Your task to perform on an android device: Search for sushi restaurants on Maps Image 0: 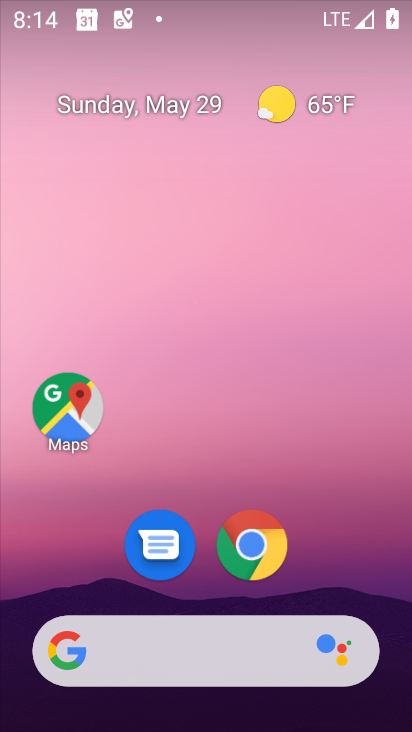
Step 0: click (63, 402)
Your task to perform on an android device: Search for sushi restaurants on Maps Image 1: 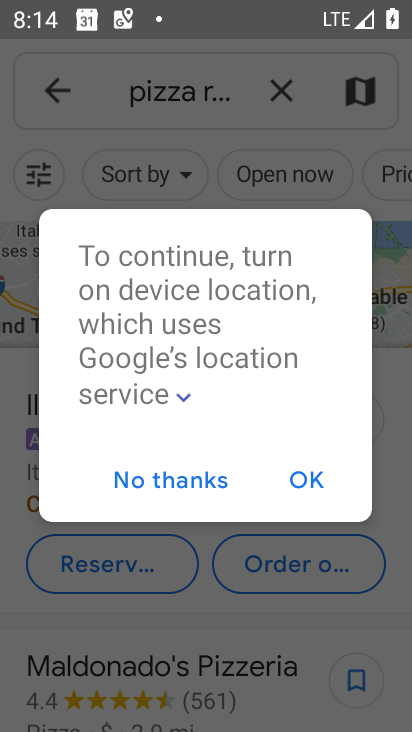
Step 1: click (323, 488)
Your task to perform on an android device: Search for sushi restaurants on Maps Image 2: 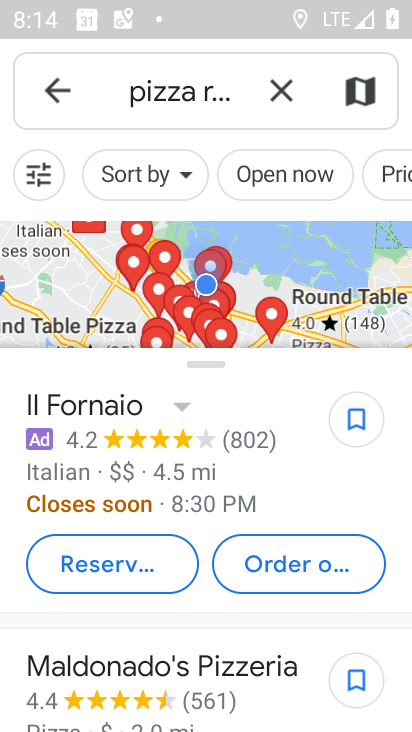
Step 2: click (278, 93)
Your task to perform on an android device: Search for sushi restaurants on Maps Image 3: 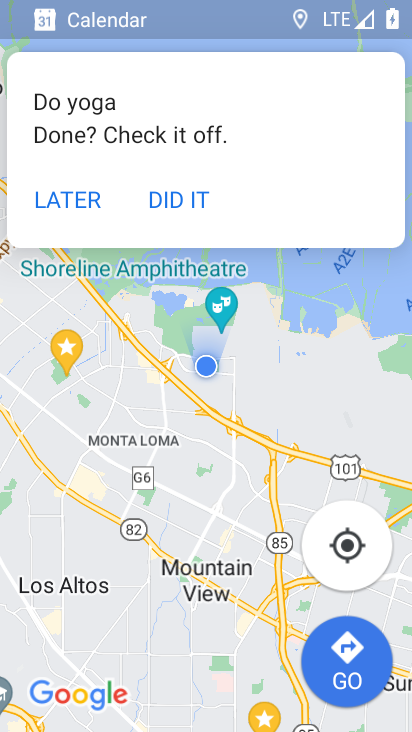
Step 3: click (259, 100)
Your task to perform on an android device: Search for sushi restaurants on Maps Image 4: 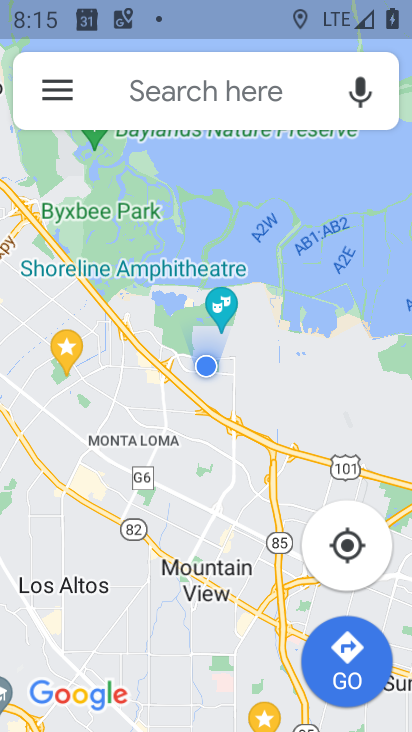
Step 4: click (225, 101)
Your task to perform on an android device: Search for sushi restaurants on Maps Image 5: 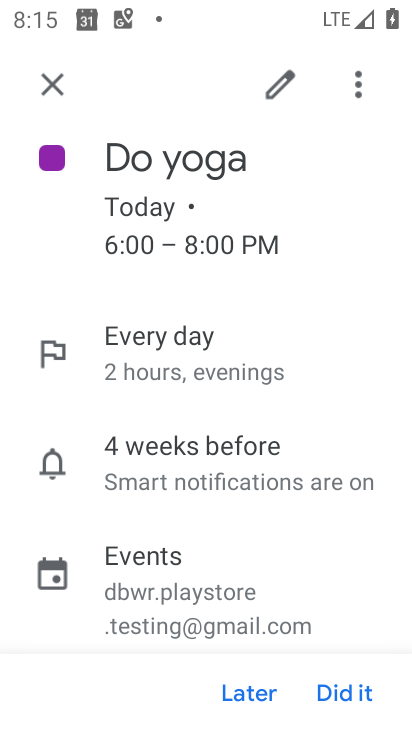
Step 5: click (85, 75)
Your task to perform on an android device: Search for sushi restaurants on Maps Image 6: 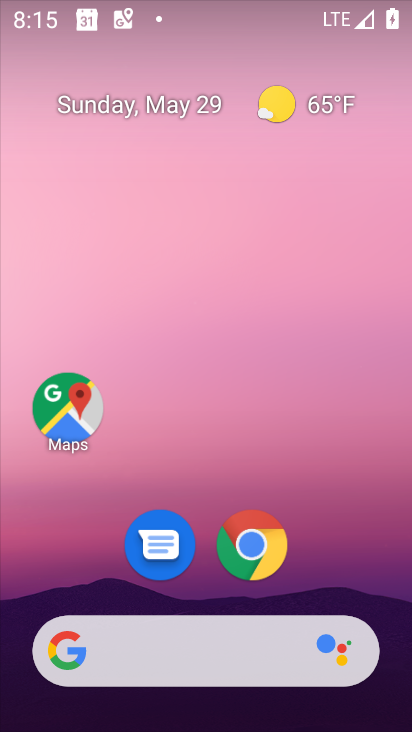
Step 6: click (252, 560)
Your task to perform on an android device: Search for sushi restaurants on Maps Image 7: 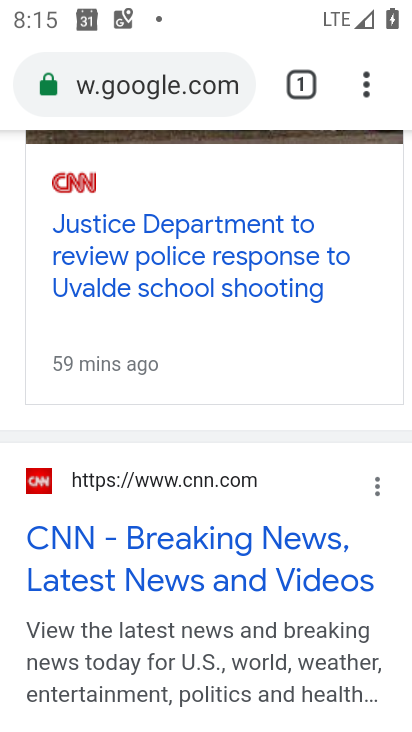
Step 7: click (165, 92)
Your task to perform on an android device: Search for sushi restaurants on Maps Image 8: 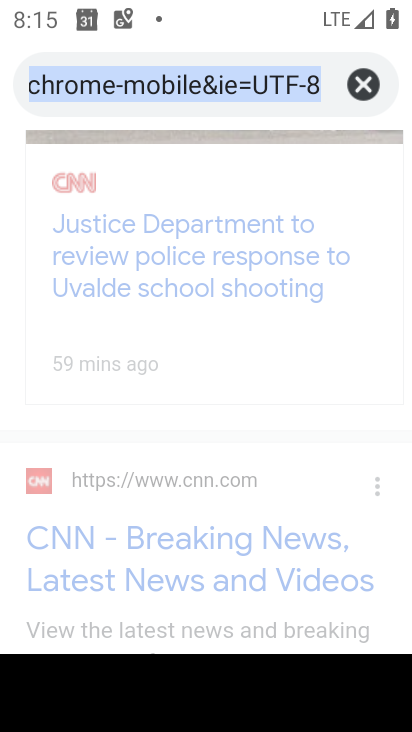
Step 8: type "sushi restaurants"
Your task to perform on an android device: Search for sushi restaurants on Maps Image 9: 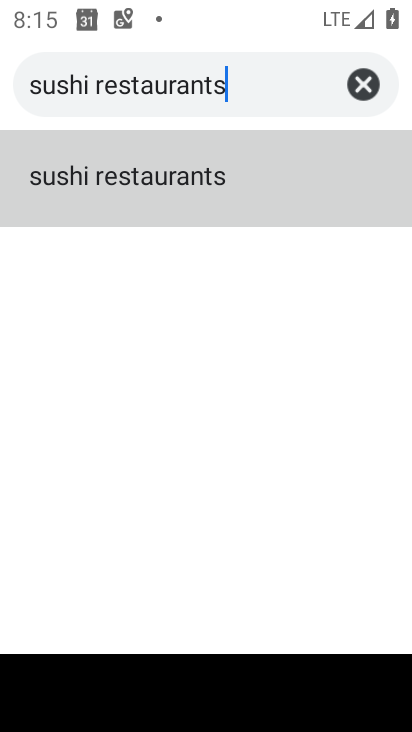
Step 9: click (190, 199)
Your task to perform on an android device: Search for sushi restaurants on Maps Image 10: 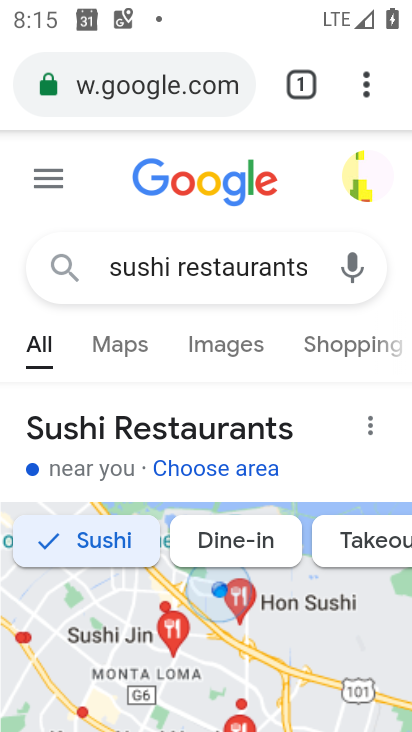
Step 10: task complete